Your task to perform on an android device: read, delete, or share a saved page in the chrome app Image 0: 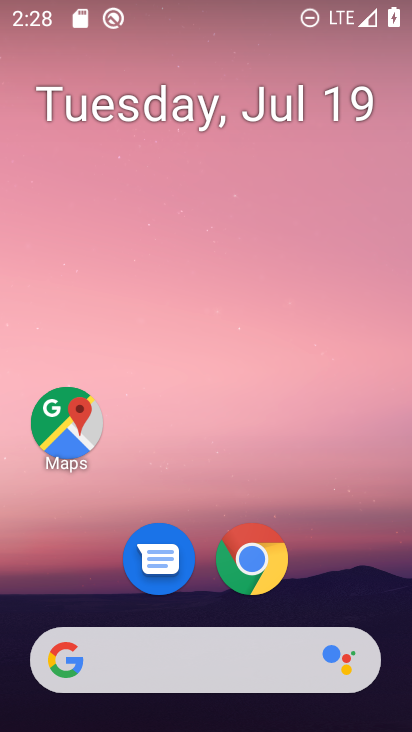
Step 0: drag from (263, 570) to (250, 75)
Your task to perform on an android device: read, delete, or share a saved page in the chrome app Image 1: 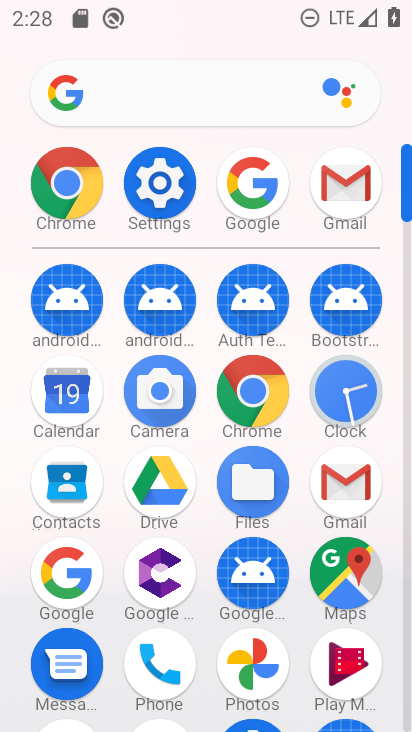
Step 1: click (257, 387)
Your task to perform on an android device: read, delete, or share a saved page in the chrome app Image 2: 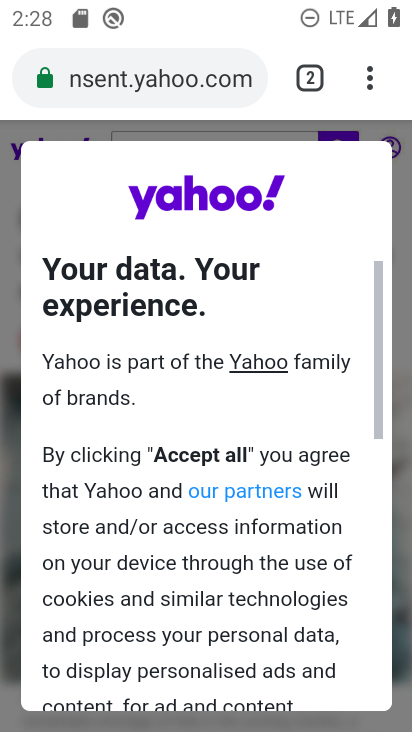
Step 2: click (384, 81)
Your task to perform on an android device: read, delete, or share a saved page in the chrome app Image 3: 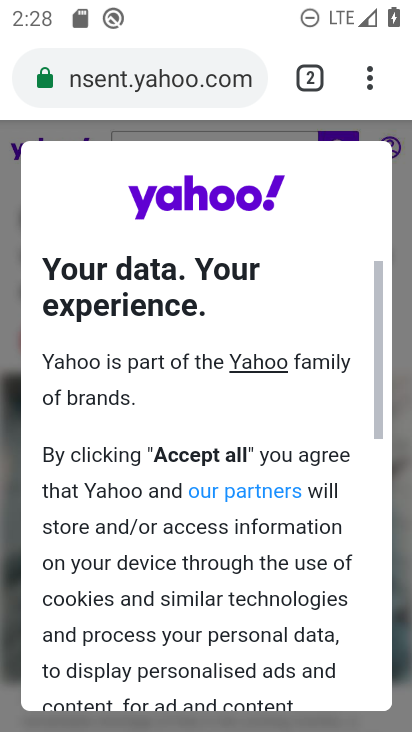
Step 3: click (385, 83)
Your task to perform on an android device: read, delete, or share a saved page in the chrome app Image 4: 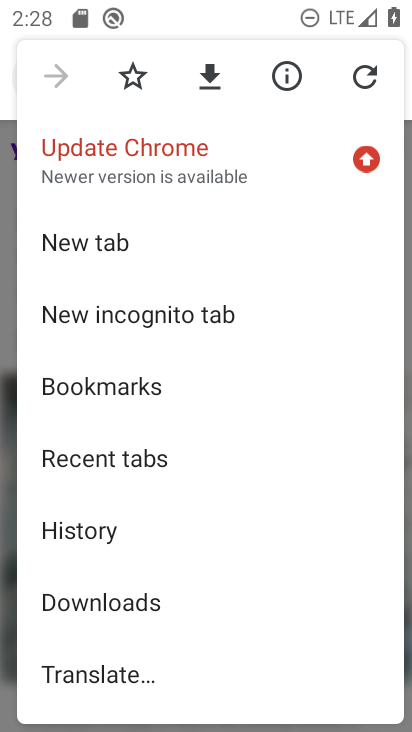
Step 4: drag from (185, 592) to (166, 408)
Your task to perform on an android device: read, delete, or share a saved page in the chrome app Image 5: 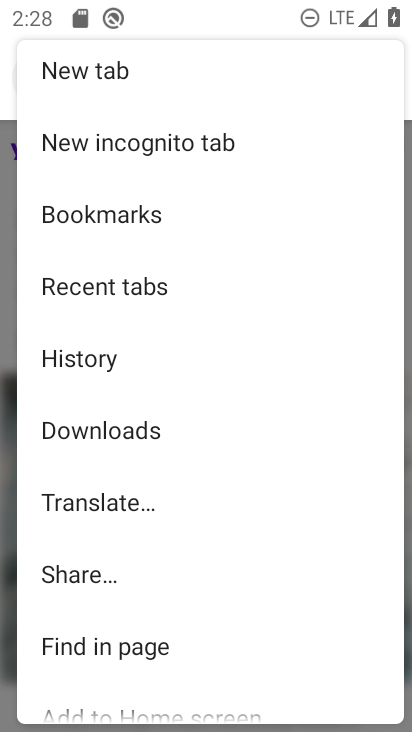
Step 5: drag from (189, 601) to (197, 653)
Your task to perform on an android device: read, delete, or share a saved page in the chrome app Image 6: 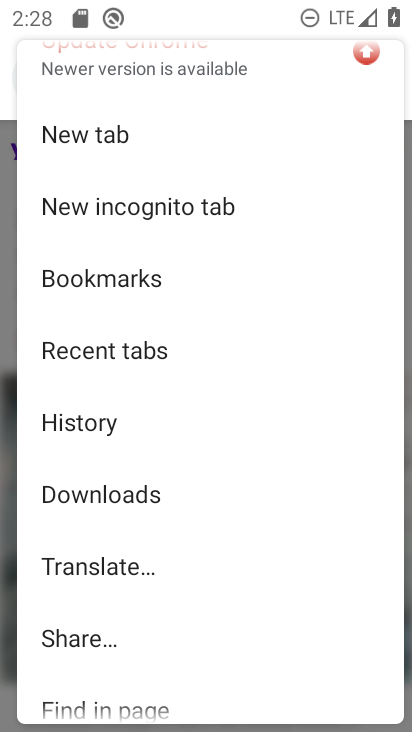
Step 6: click (159, 500)
Your task to perform on an android device: read, delete, or share a saved page in the chrome app Image 7: 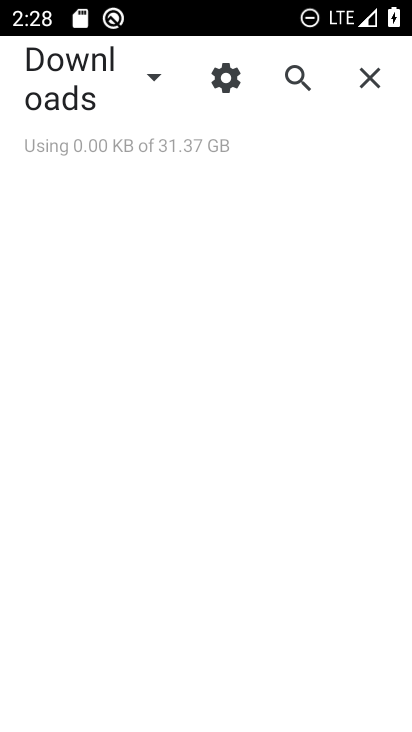
Step 7: click (164, 77)
Your task to perform on an android device: read, delete, or share a saved page in the chrome app Image 8: 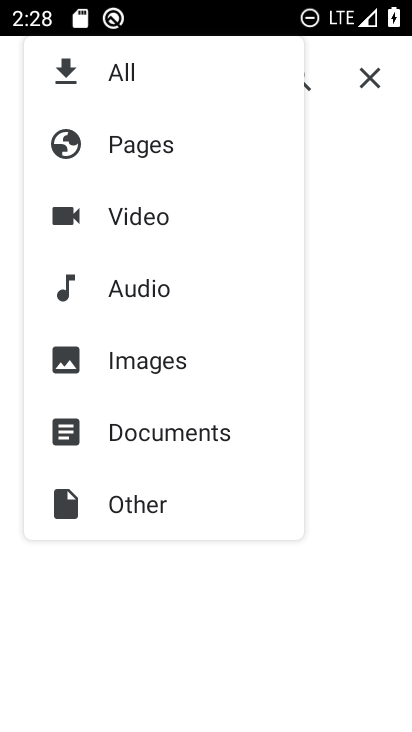
Step 8: click (138, 145)
Your task to perform on an android device: read, delete, or share a saved page in the chrome app Image 9: 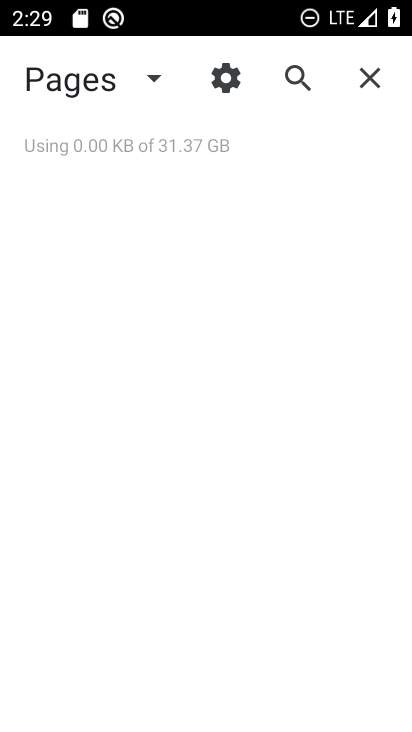
Step 9: task complete